Your task to perform on an android device: turn off location history Image 0: 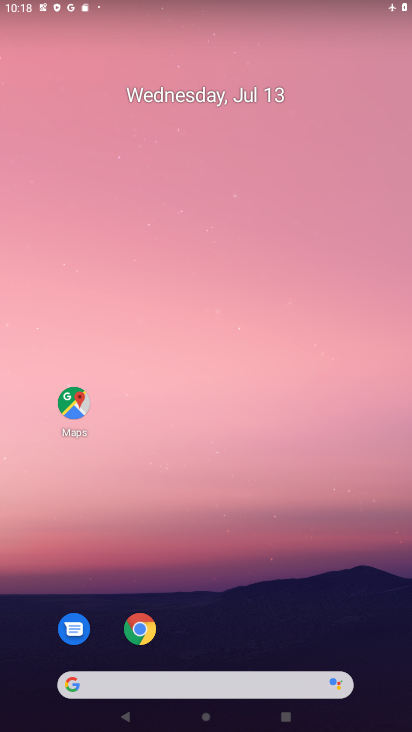
Step 0: drag from (292, 641) to (310, 134)
Your task to perform on an android device: turn off location history Image 1: 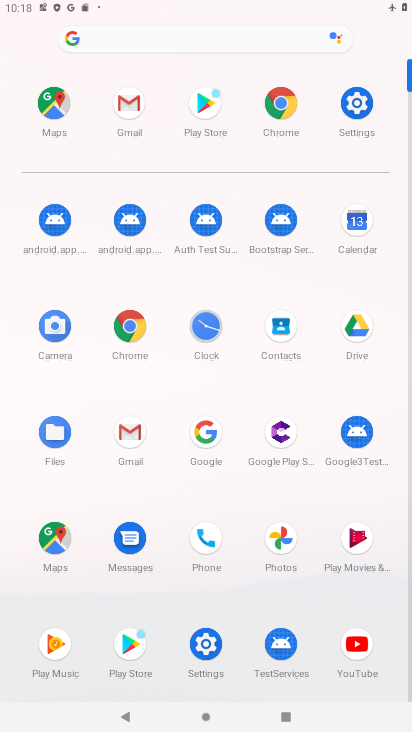
Step 1: click (201, 638)
Your task to perform on an android device: turn off location history Image 2: 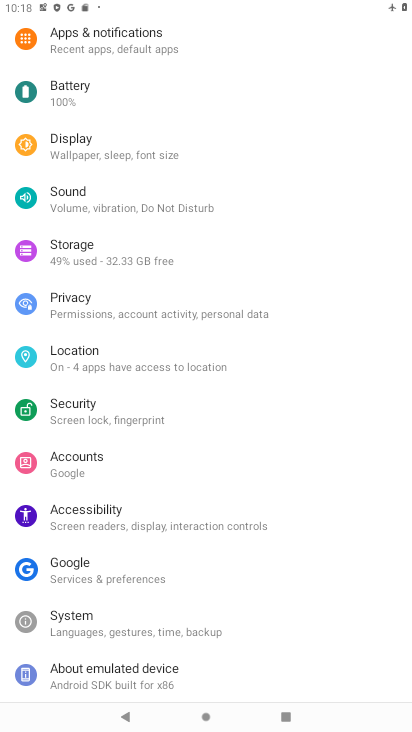
Step 2: drag from (91, 598) to (97, 445)
Your task to perform on an android device: turn off location history Image 3: 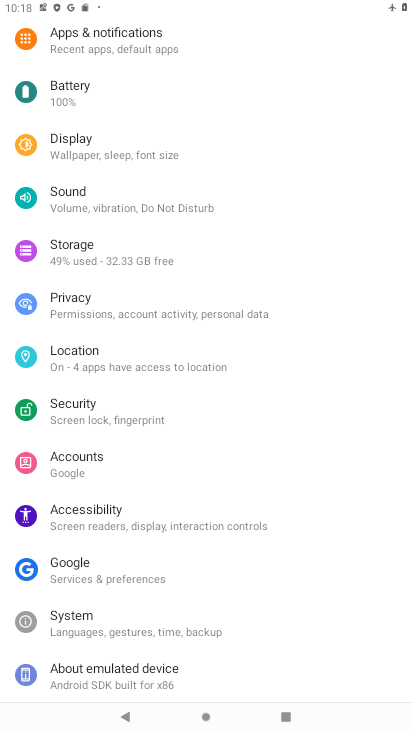
Step 3: click (145, 363)
Your task to perform on an android device: turn off location history Image 4: 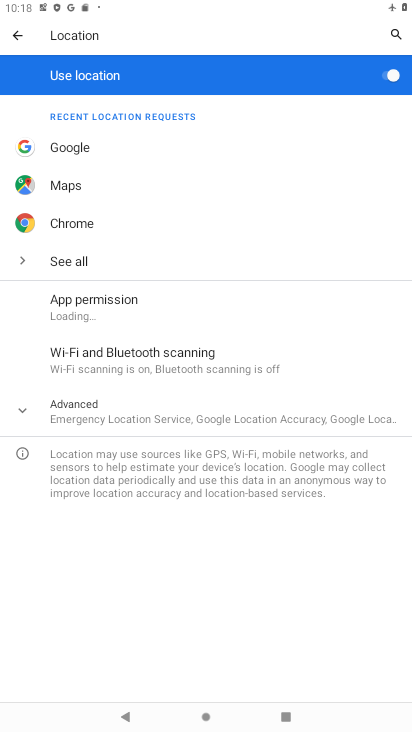
Step 4: click (379, 81)
Your task to perform on an android device: turn off location history Image 5: 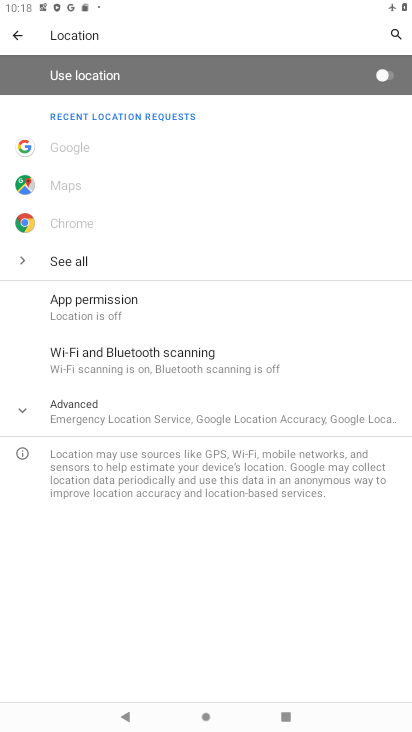
Step 5: task complete